Your task to perform on an android device: Open the stopwatch Image 0: 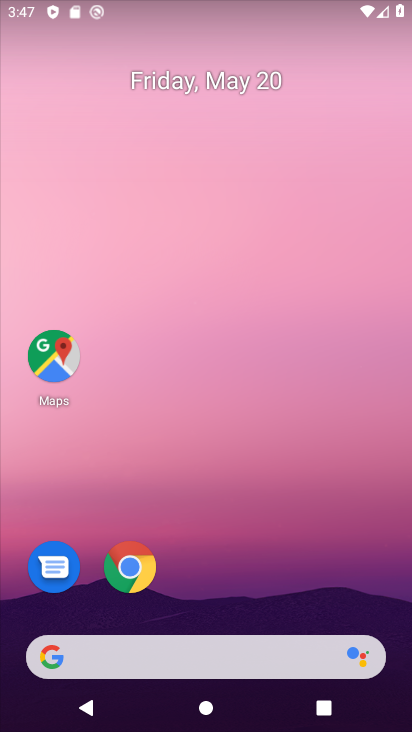
Step 0: drag from (179, 612) to (239, 75)
Your task to perform on an android device: Open the stopwatch Image 1: 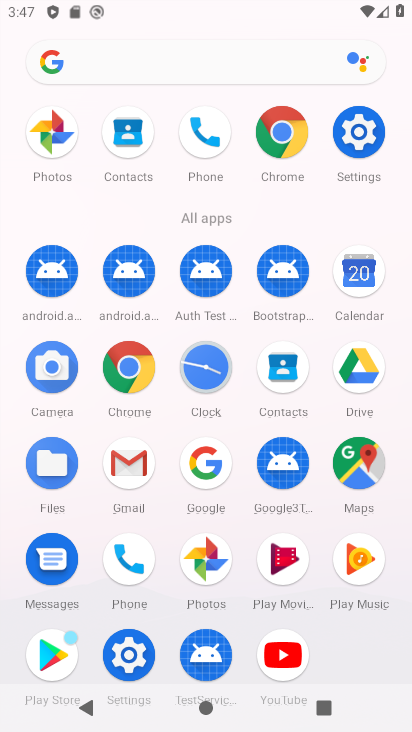
Step 1: click (210, 364)
Your task to perform on an android device: Open the stopwatch Image 2: 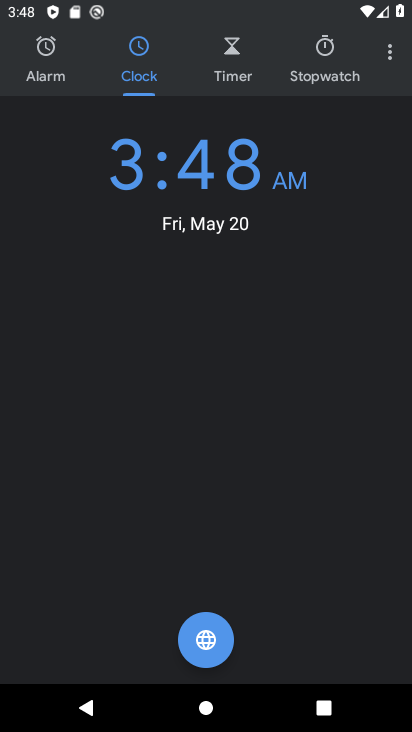
Step 2: click (333, 91)
Your task to perform on an android device: Open the stopwatch Image 3: 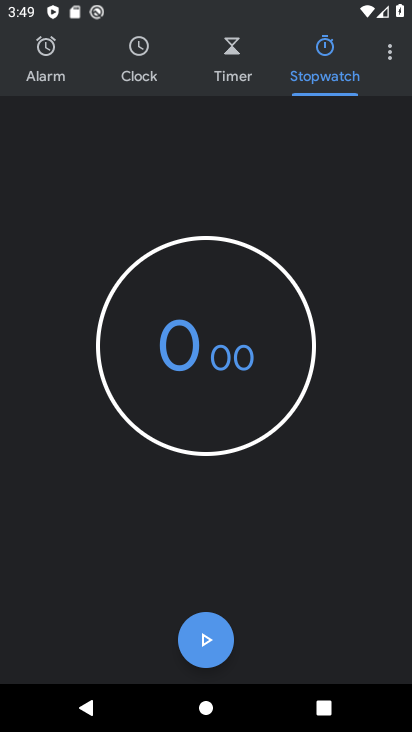
Step 3: task complete